Your task to perform on an android device: change keyboard looks Image 0: 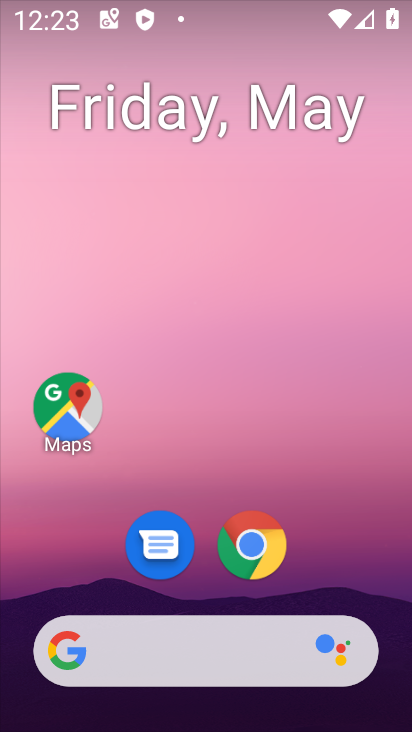
Step 0: drag from (312, 494) to (340, 177)
Your task to perform on an android device: change keyboard looks Image 1: 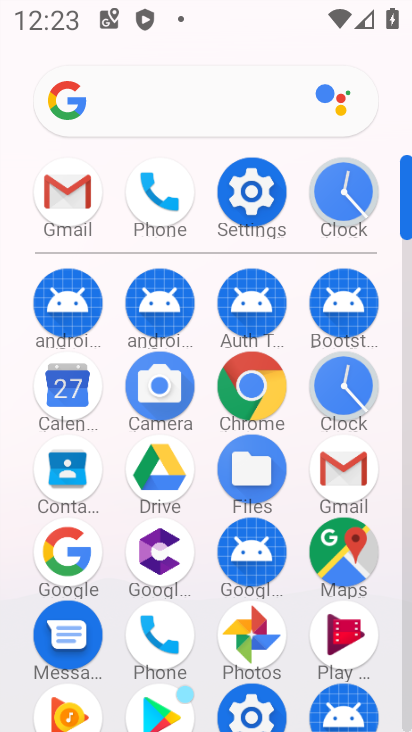
Step 1: click (239, 193)
Your task to perform on an android device: change keyboard looks Image 2: 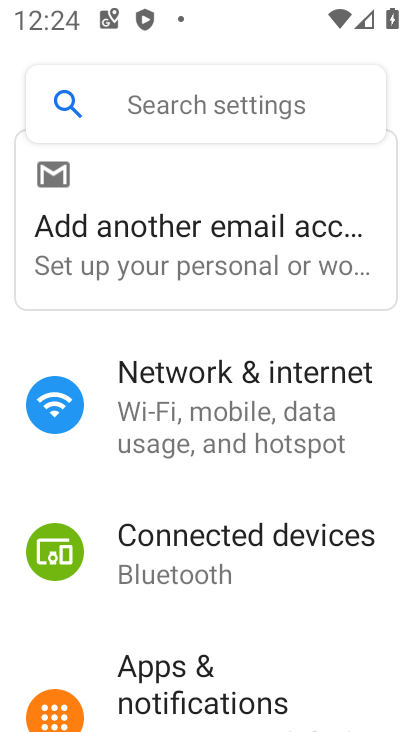
Step 2: drag from (250, 592) to (282, 279)
Your task to perform on an android device: change keyboard looks Image 3: 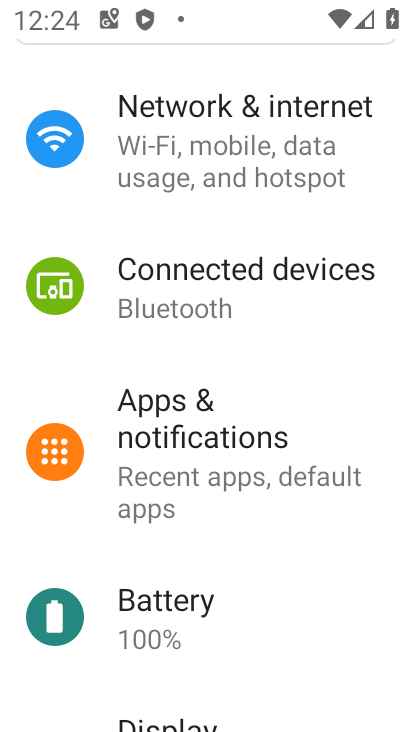
Step 3: drag from (266, 631) to (304, 285)
Your task to perform on an android device: change keyboard looks Image 4: 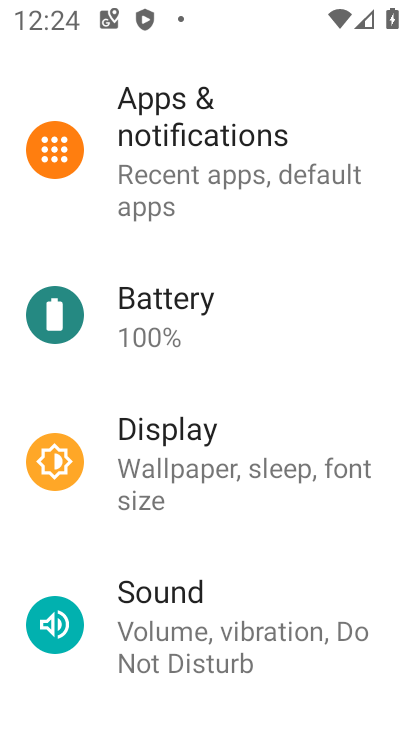
Step 4: drag from (274, 598) to (291, 198)
Your task to perform on an android device: change keyboard looks Image 5: 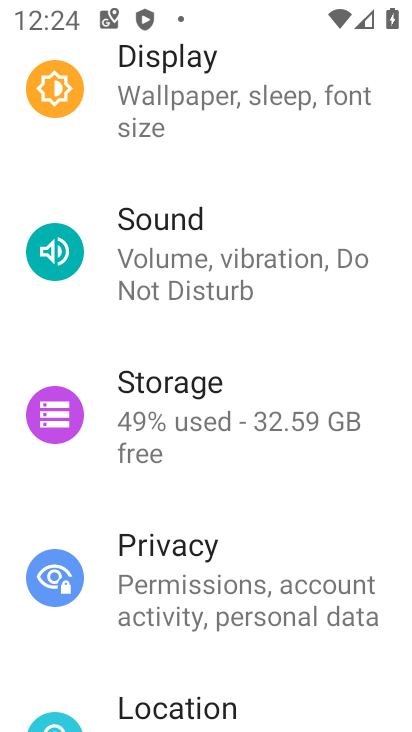
Step 5: click (304, 232)
Your task to perform on an android device: change keyboard looks Image 6: 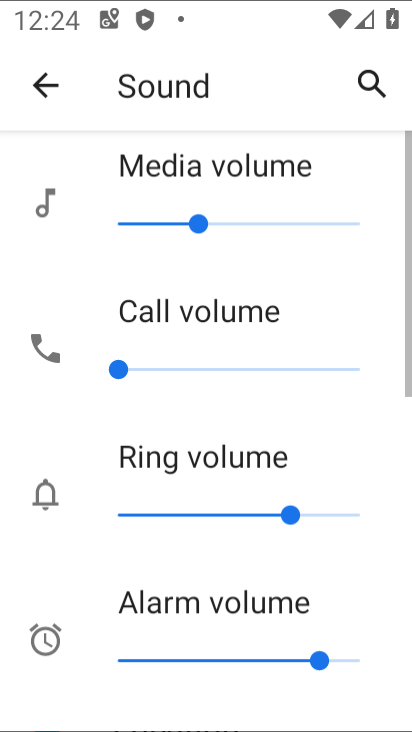
Step 6: drag from (237, 590) to (272, 251)
Your task to perform on an android device: change keyboard looks Image 7: 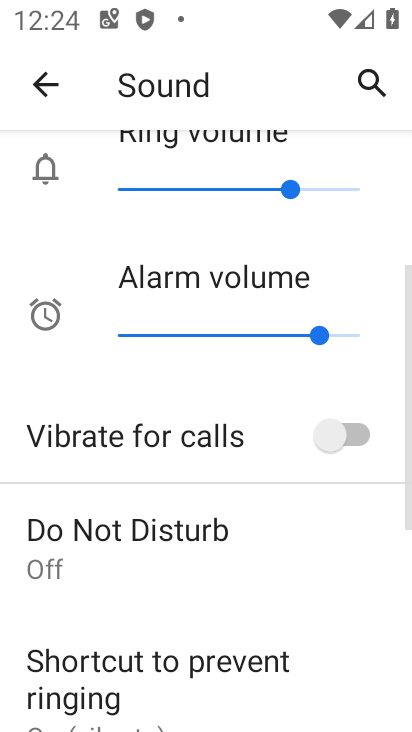
Step 7: click (64, 92)
Your task to perform on an android device: change keyboard looks Image 8: 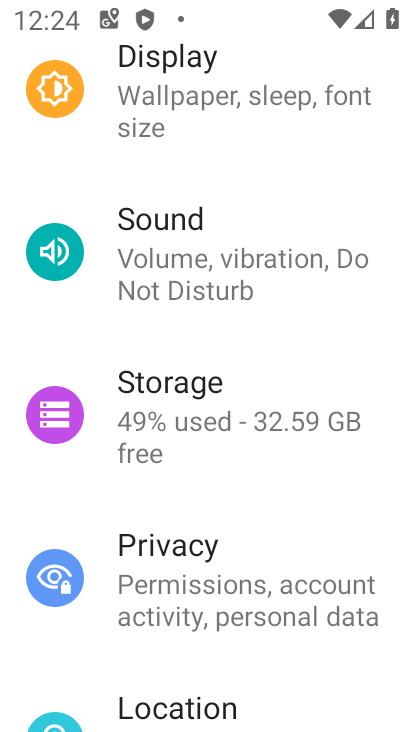
Step 8: drag from (239, 665) to (323, 200)
Your task to perform on an android device: change keyboard looks Image 9: 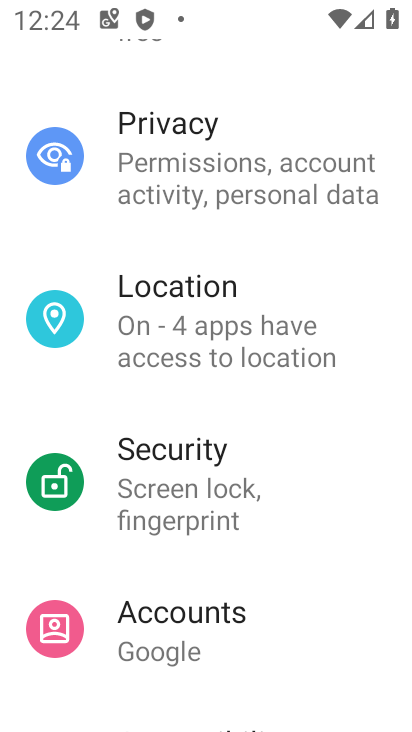
Step 9: drag from (227, 629) to (304, 221)
Your task to perform on an android device: change keyboard looks Image 10: 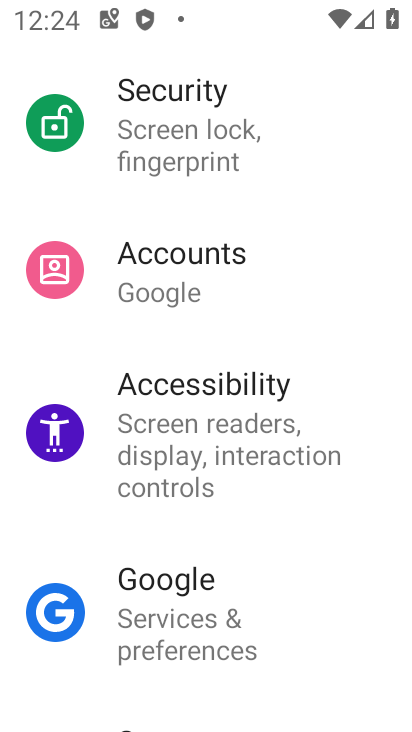
Step 10: drag from (211, 635) to (254, 262)
Your task to perform on an android device: change keyboard looks Image 11: 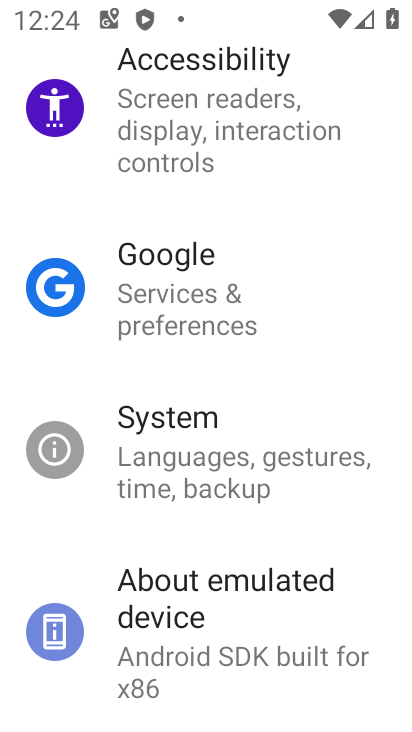
Step 11: click (190, 470)
Your task to perform on an android device: change keyboard looks Image 12: 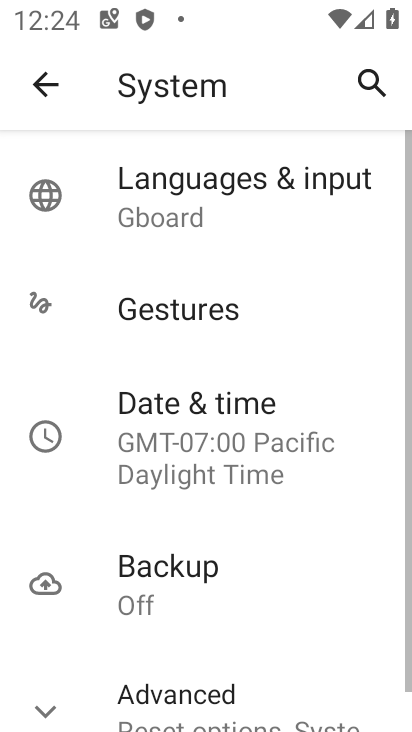
Step 12: click (161, 207)
Your task to perform on an android device: change keyboard looks Image 13: 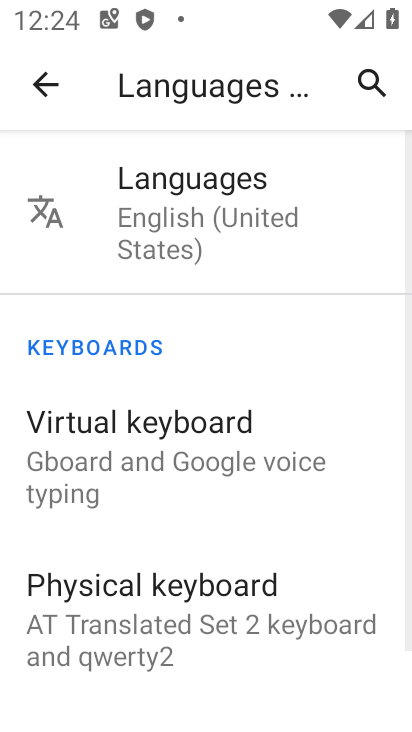
Step 13: click (151, 424)
Your task to perform on an android device: change keyboard looks Image 14: 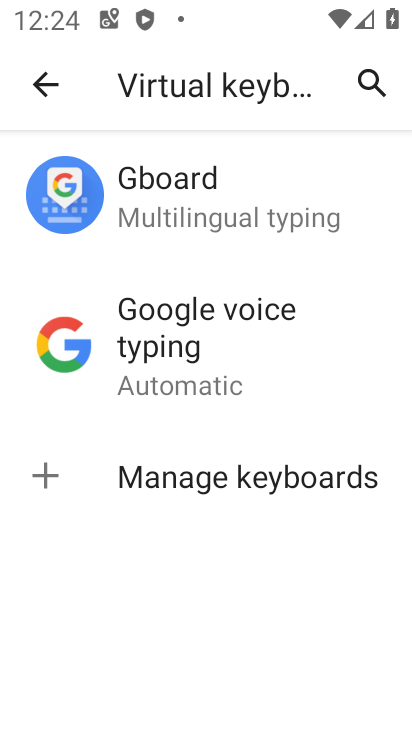
Step 14: click (155, 200)
Your task to perform on an android device: change keyboard looks Image 15: 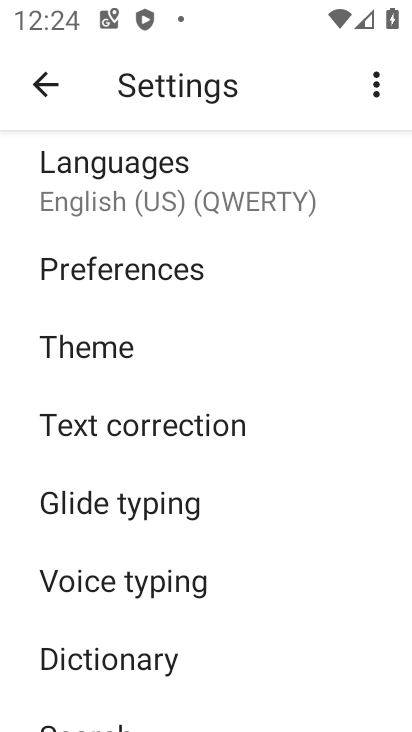
Step 15: click (126, 342)
Your task to perform on an android device: change keyboard looks Image 16: 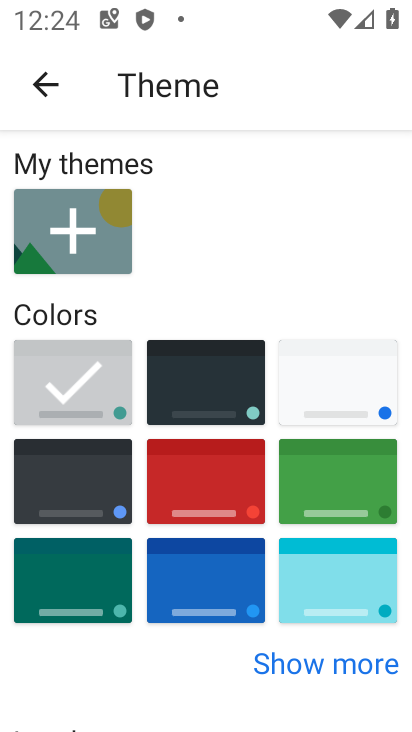
Step 16: click (286, 488)
Your task to perform on an android device: change keyboard looks Image 17: 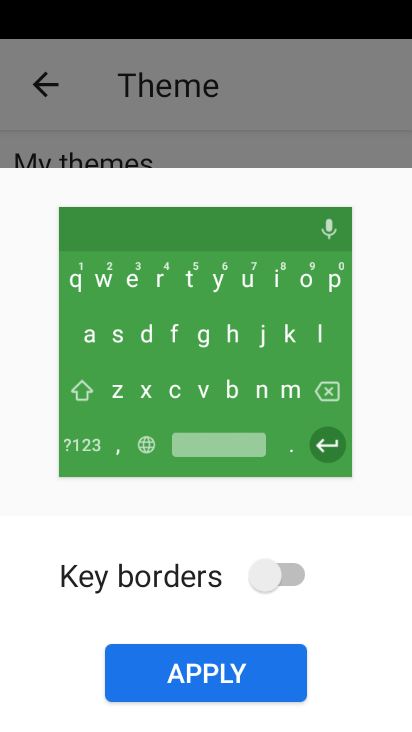
Step 17: click (227, 665)
Your task to perform on an android device: change keyboard looks Image 18: 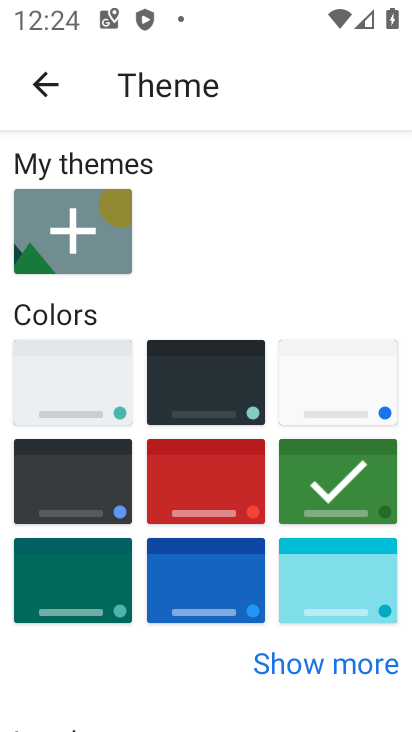
Step 18: task complete